Your task to perform on an android device: Go to Google Image 0: 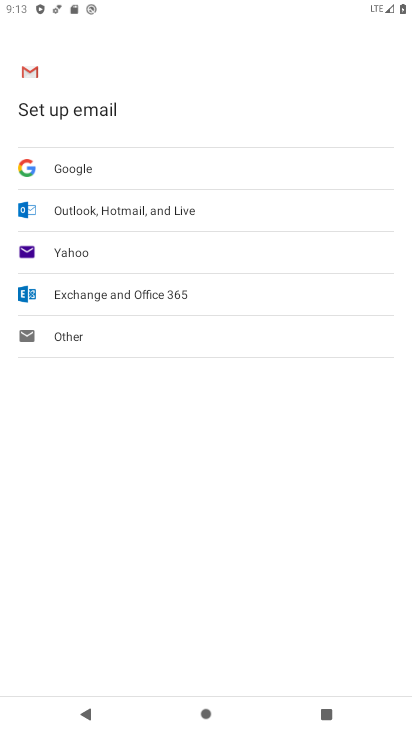
Step 0: press home button
Your task to perform on an android device: Go to Google Image 1: 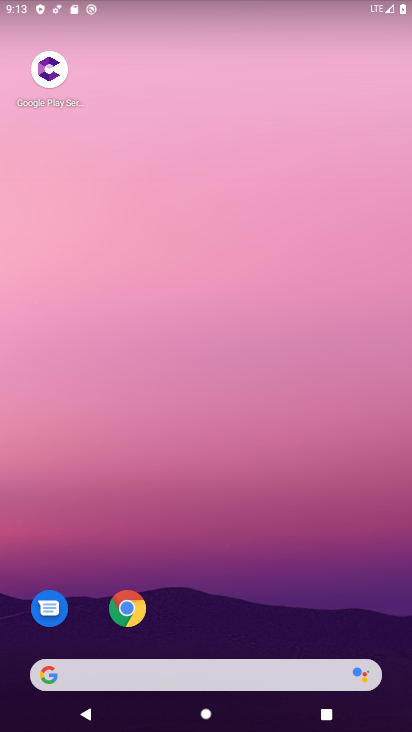
Step 1: drag from (182, 644) to (183, 49)
Your task to perform on an android device: Go to Google Image 2: 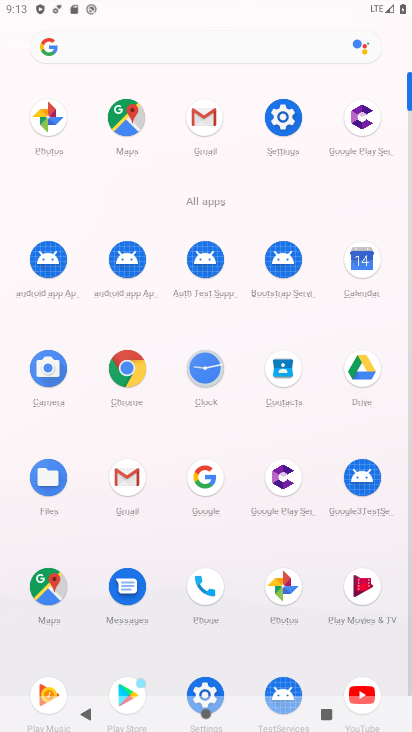
Step 2: click (210, 483)
Your task to perform on an android device: Go to Google Image 3: 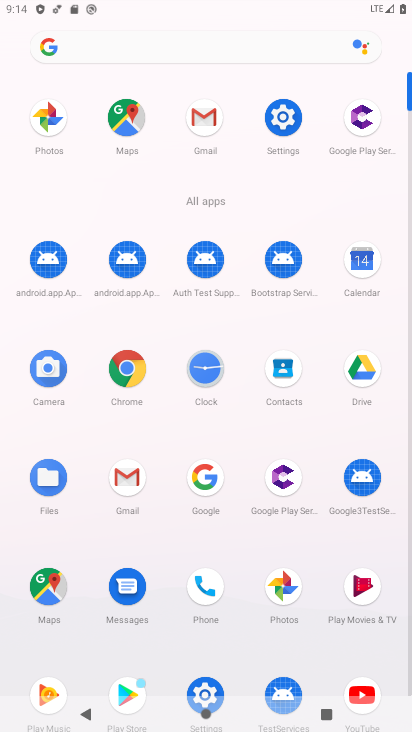
Step 3: click (223, 476)
Your task to perform on an android device: Go to Google Image 4: 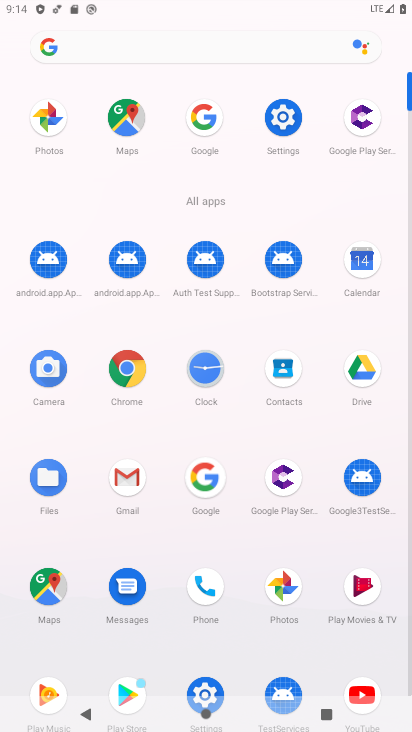
Step 4: click (226, 476)
Your task to perform on an android device: Go to Google Image 5: 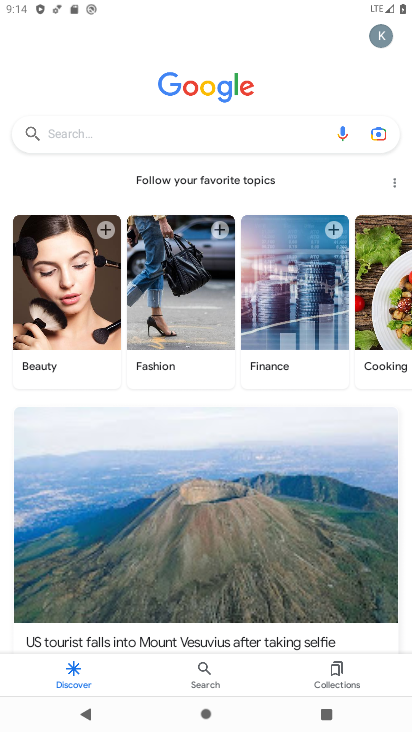
Step 5: task complete